Your task to perform on an android device: Open location settings Image 0: 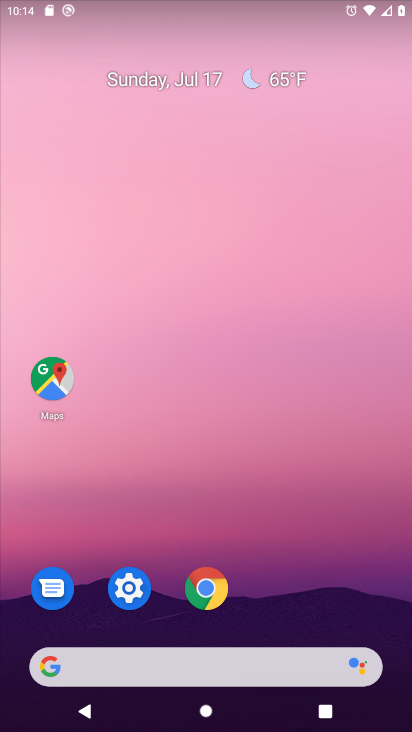
Step 0: drag from (239, 243) to (239, 122)
Your task to perform on an android device: Open location settings Image 1: 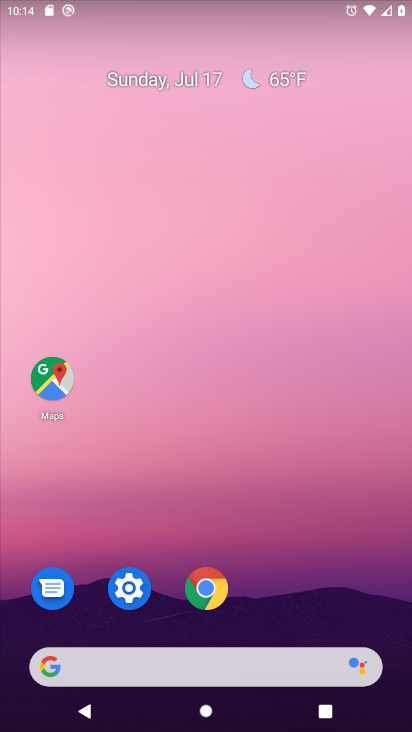
Step 1: drag from (268, 539) to (212, 27)
Your task to perform on an android device: Open location settings Image 2: 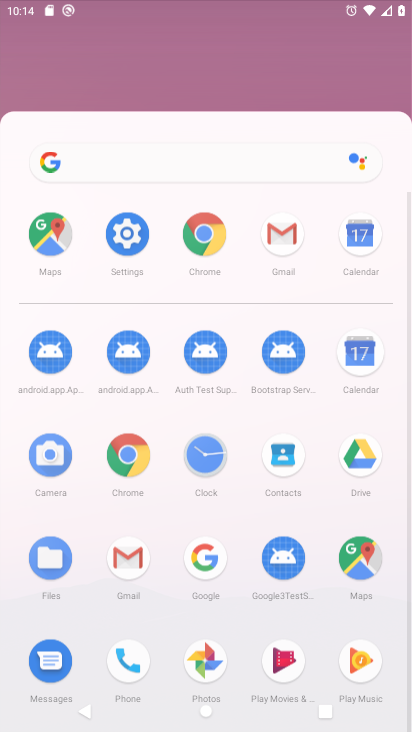
Step 2: drag from (294, 569) to (249, 97)
Your task to perform on an android device: Open location settings Image 3: 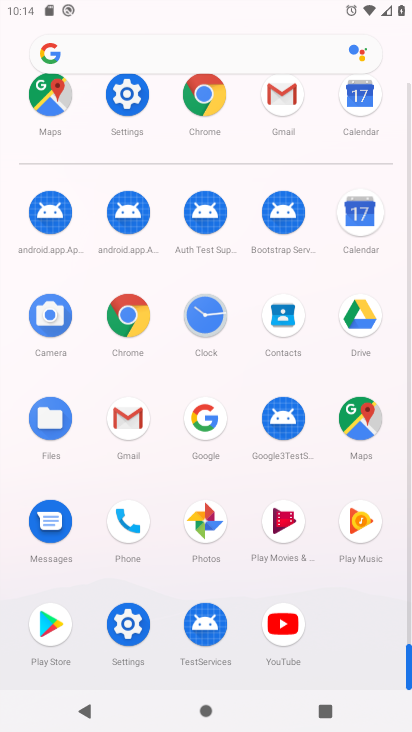
Step 3: drag from (224, 550) to (207, 77)
Your task to perform on an android device: Open location settings Image 4: 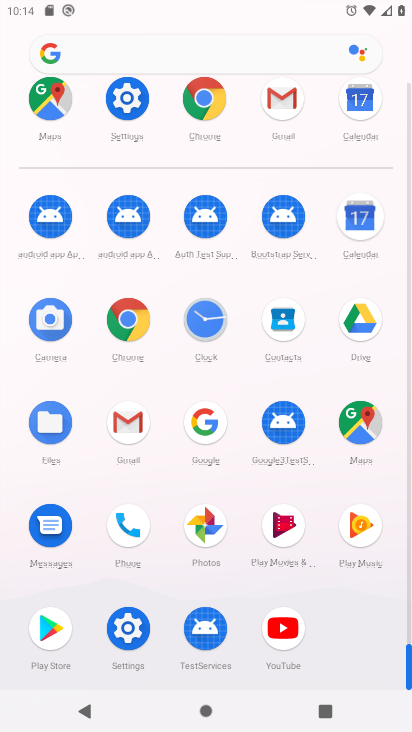
Step 4: click (126, 635)
Your task to perform on an android device: Open location settings Image 5: 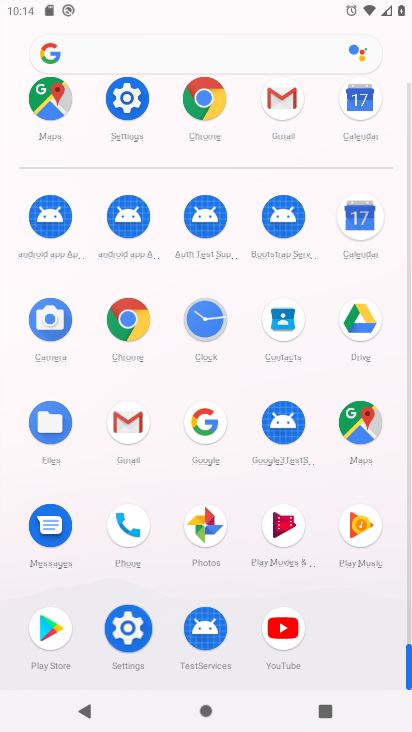
Step 5: click (130, 633)
Your task to perform on an android device: Open location settings Image 6: 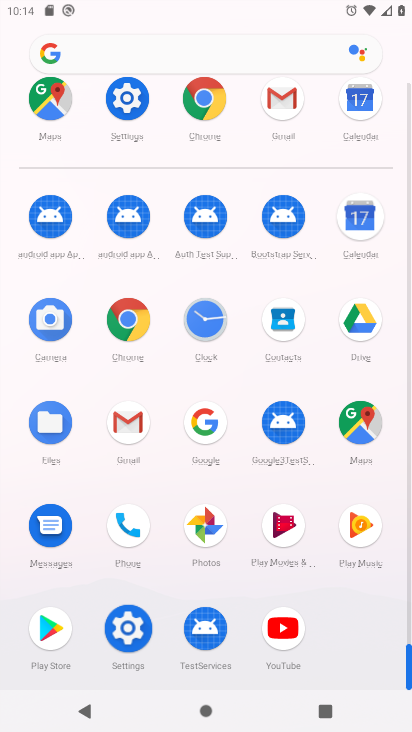
Step 6: click (133, 632)
Your task to perform on an android device: Open location settings Image 7: 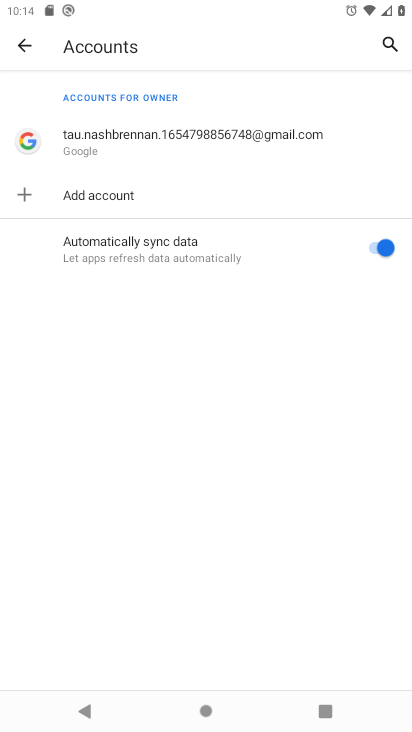
Step 7: click (23, 38)
Your task to perform on an android device: Open location settings Image 8: 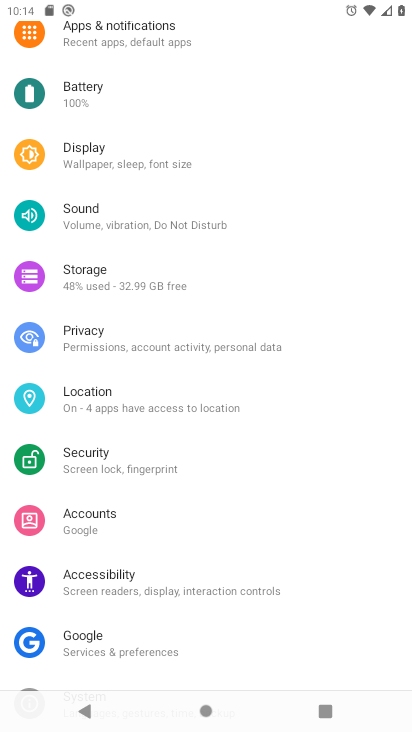
Step 8: drag from (179, 431) to (142, 216)
Your task to perform on an android device: Open location settings Image 9: 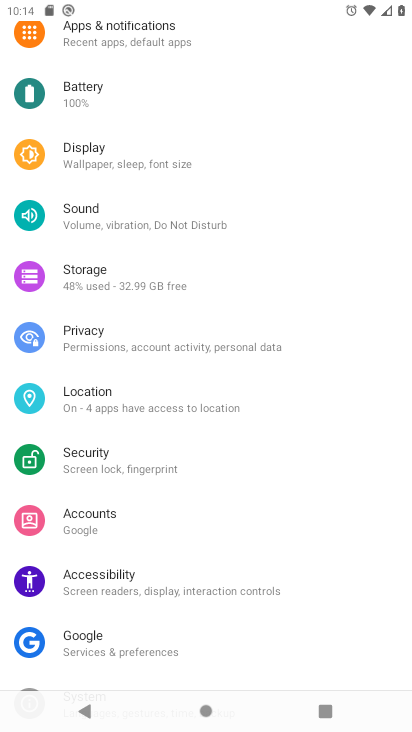
Step 9: drag from (120, 407) to (70, 291)
Your task to perform on an android device: Open location settings Image 10: 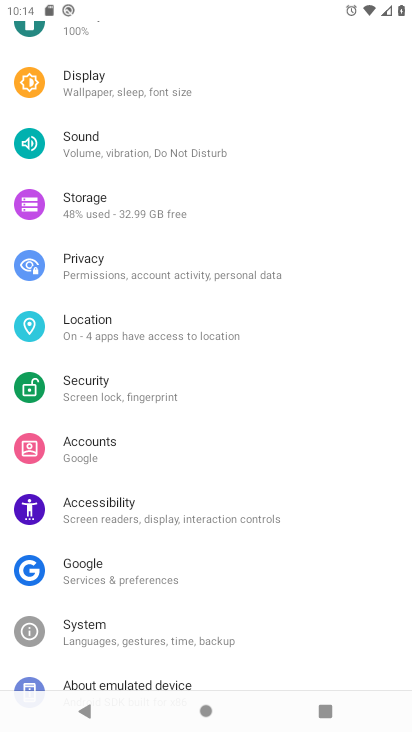
Step 10: drag from (150, 502) to (113, 241)
Your task to perform on an android device: Open location settings Image 11: 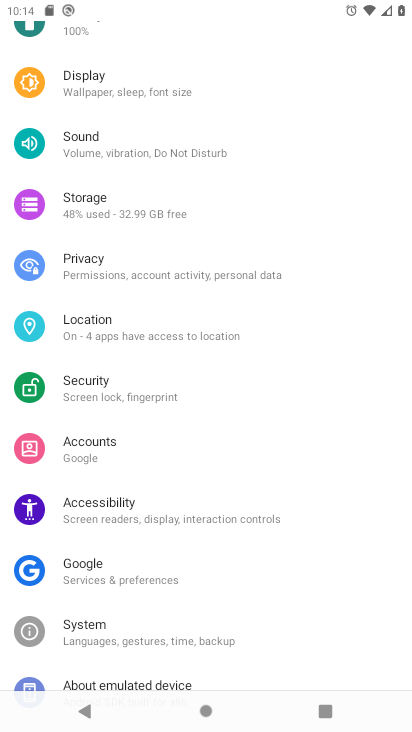
Step 11: drag from (198, 638) to (141, 278)
Your task to perform on an android device: Open location settings Image 12: 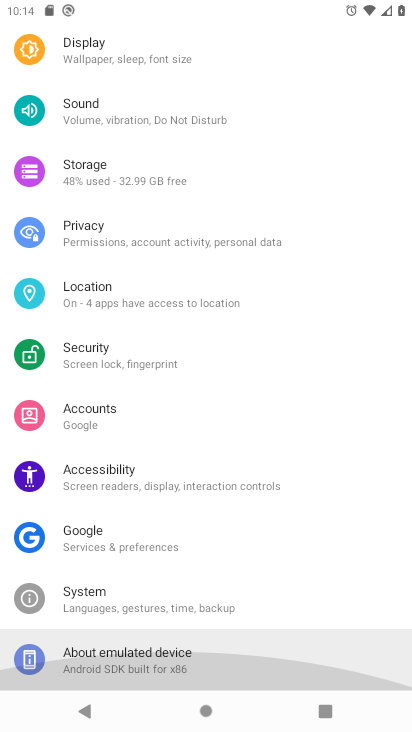
Step 12: drag from (120, 584) to (115, 197)
Your task to perform on an android device: Open location settings Image 13: 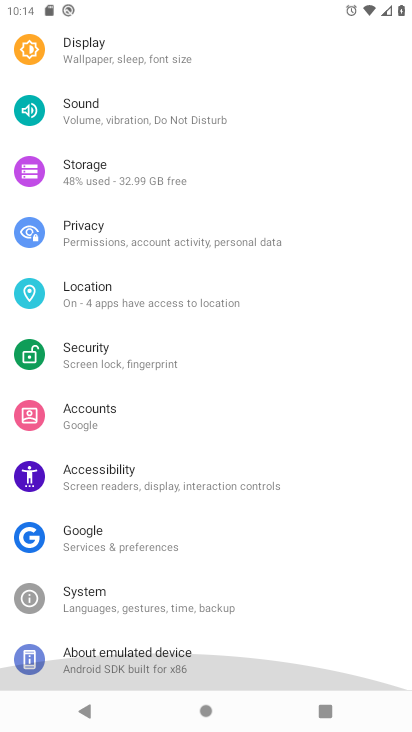
Step 13: drag from (167, 476) to (132, 194)
Your task to perform on an android device: Open location settings Image 14: 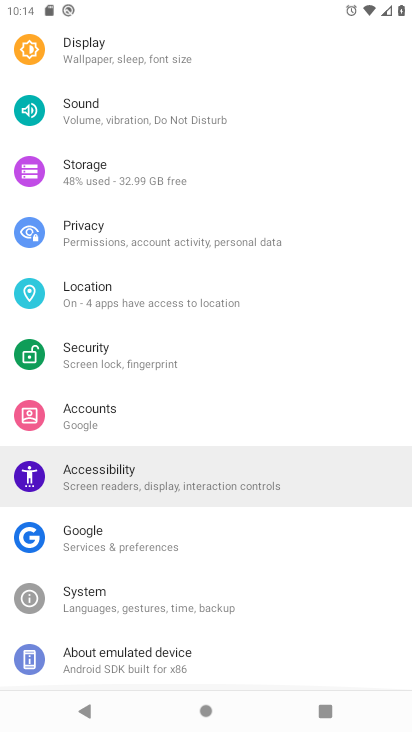
Step 14: drag from (199, 560) to (177, 359)
Your task to perform on an android device: Open location settings Image 15: 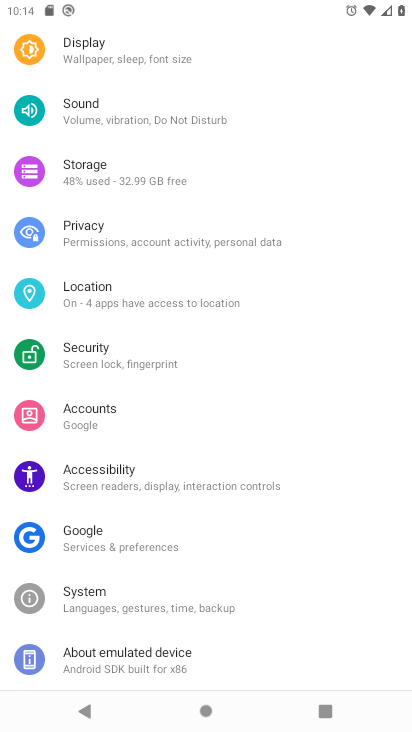
Step 15: click (103, 291)
Your task to perform on an android device: Open location settings Image 16: 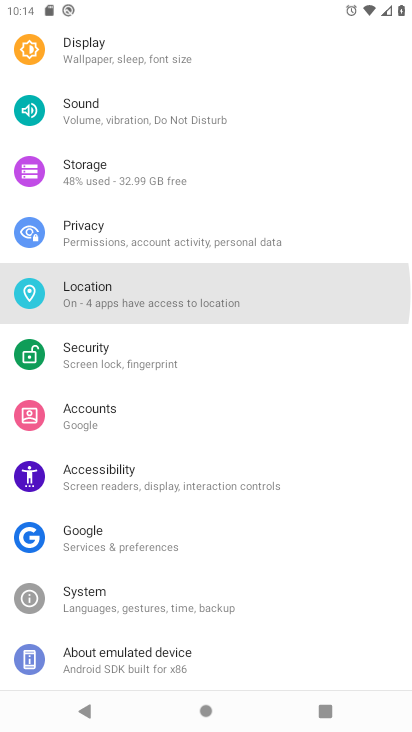
Step 16: click (105, 292)
Your task to perform on an android device: Open location settings Image 17: 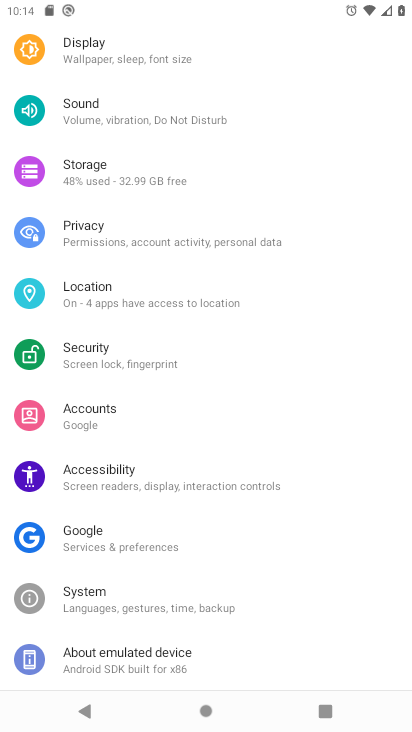
Step 17: click (105, 292)
Your task to perform on an android device: Open location settings Image 18: 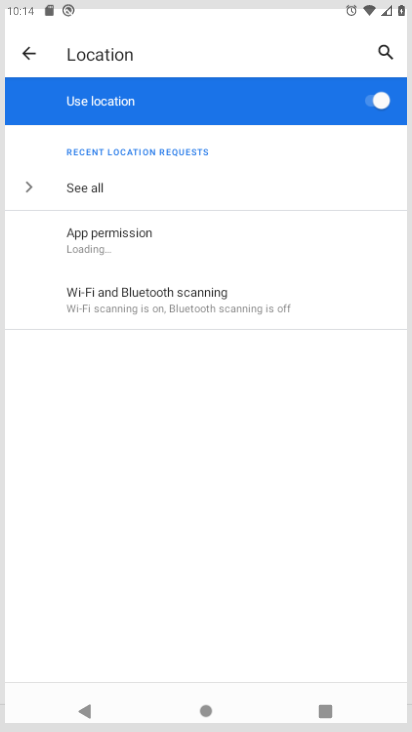
Step 18: click (109, 292)
Your task to perform on an android device: Open location settings Image 19: 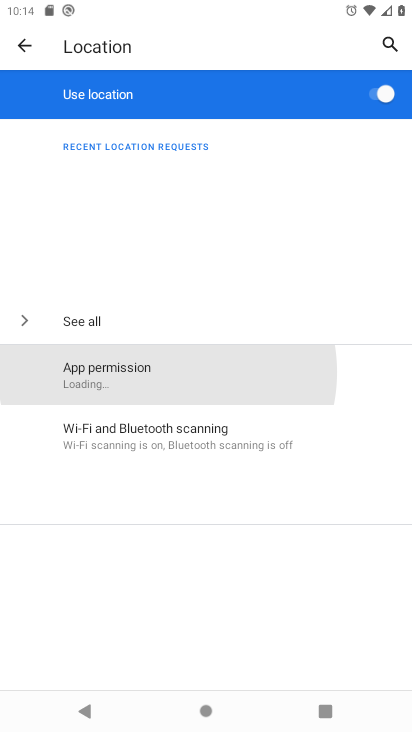
Step 19: click (109, 292)
Your task to perform on an android device: Open location settings Image 20: 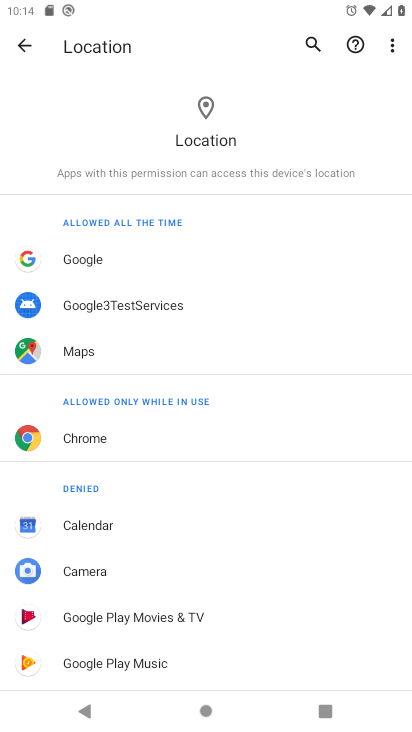
Step 20: task complete